Your task to perform on an android device: Go to eBay Image 0: 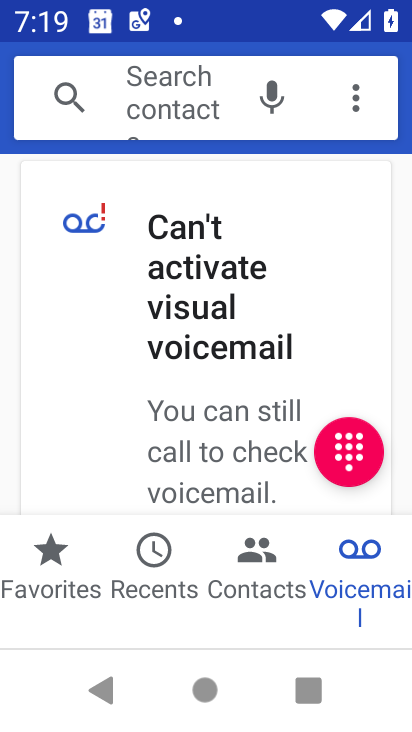
Step 0: press home button
Your task to perform on an android device: Go to eBay Image 1: 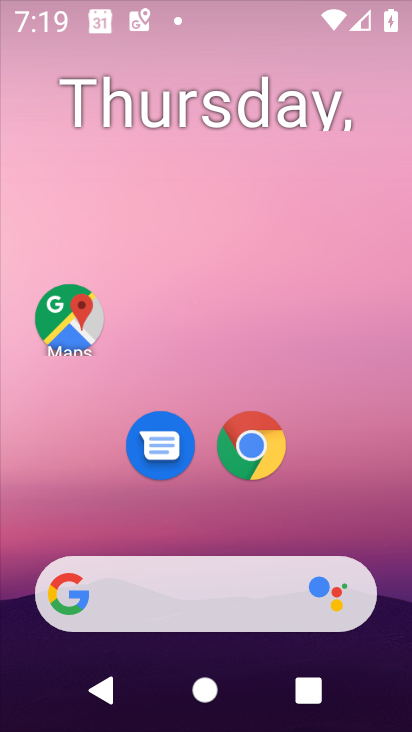
Step 1: drag from (367, 660) to (284, 4)
Your task to perform on an android device: Go to eBay Image 2: 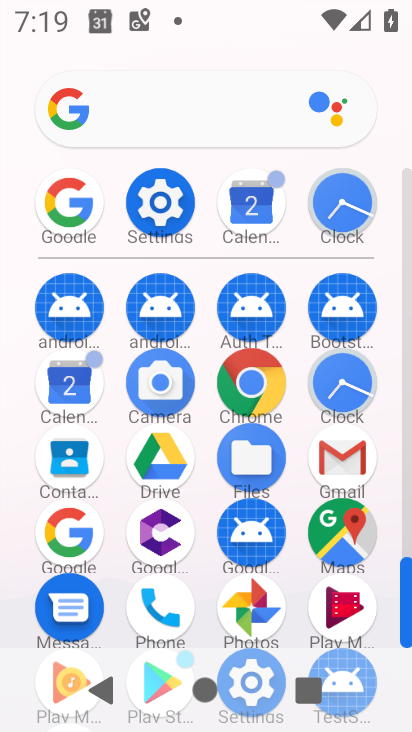
Step 2: click (80, 530)
Your task to perform on an android device: Go to eBay Image 3: 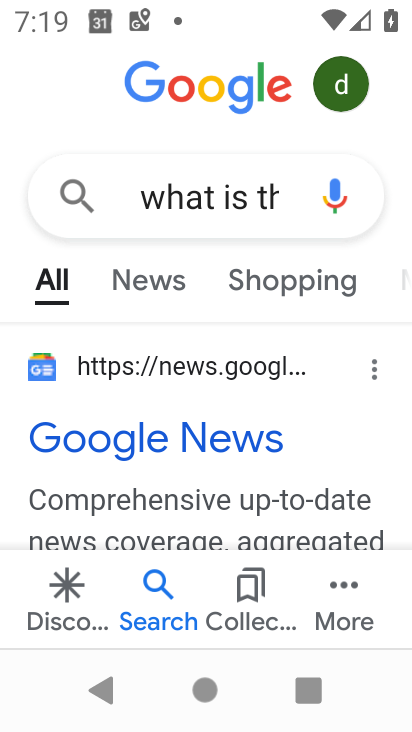
Step 3: press back button
Your task to perform on an android device: Go to eBay Image 4: 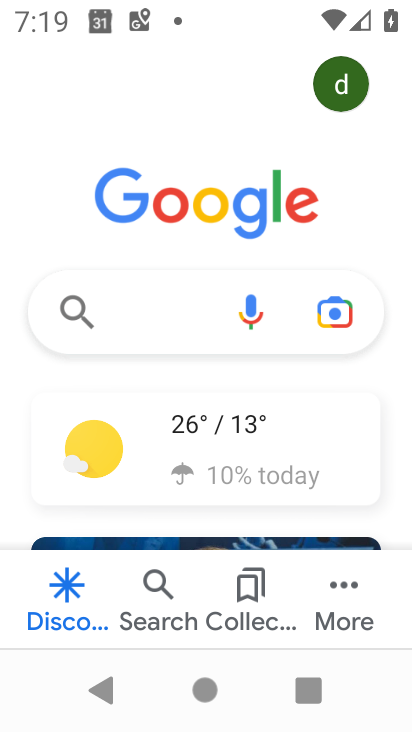
Step 4: click (133, 292)
Your task to perform on an android device: Go to eBay Image 5: 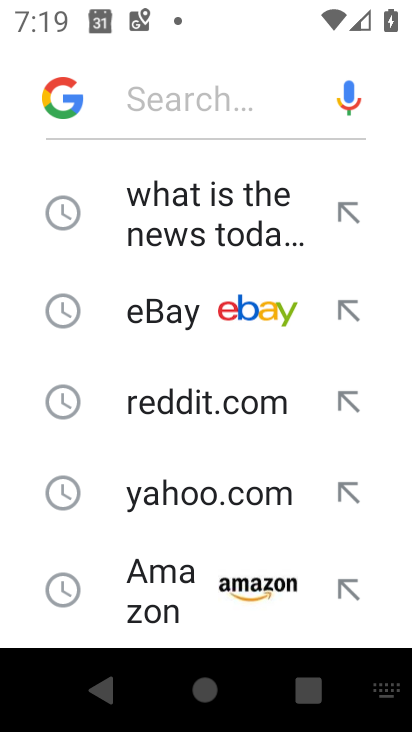
Step 5: click (177, 326)
Your task to perform on an android device: Go to eBay Image 6: 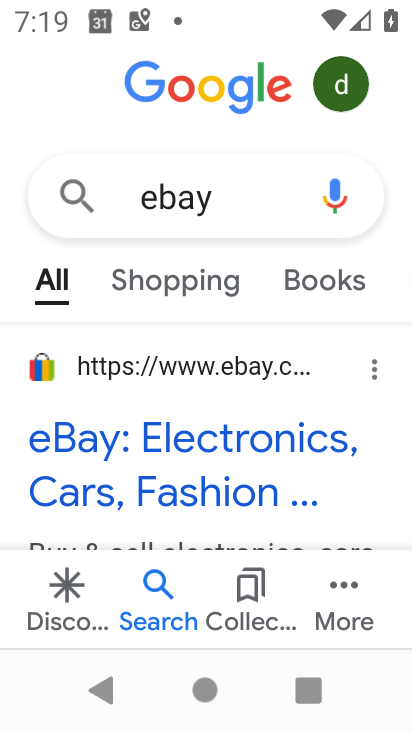
Step 6: task complete